Your task to perform on an android device: What's on my calendar today? Image 0: 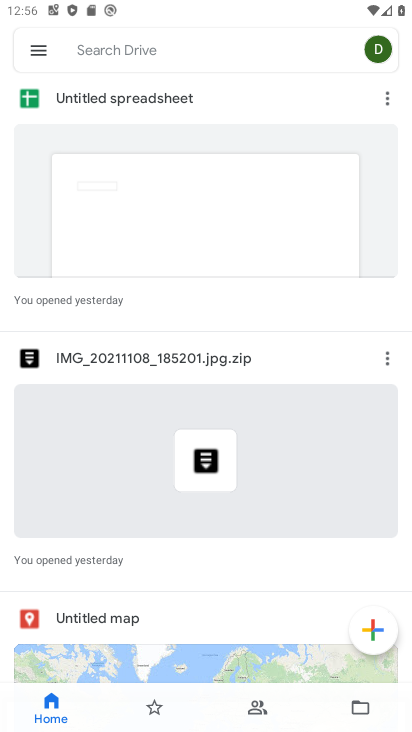
Step 0: press home button
Your task to perform on an android device: What's on my calendar today? Image 1: 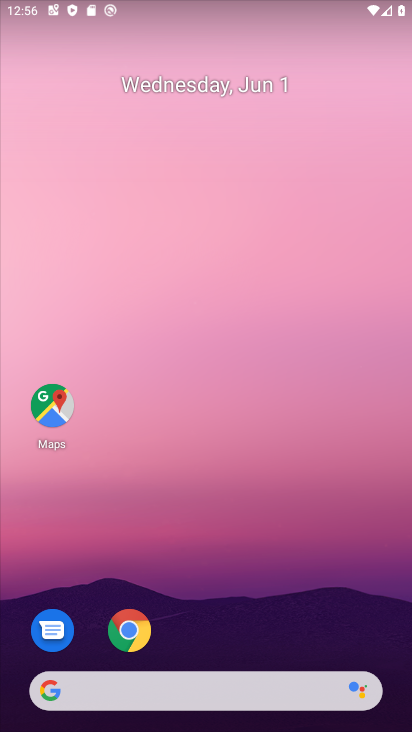
Step 1: drag from (293, 260) to (293, 202)
Your task to perform on an android device: What's on my calendar today? Image 2: 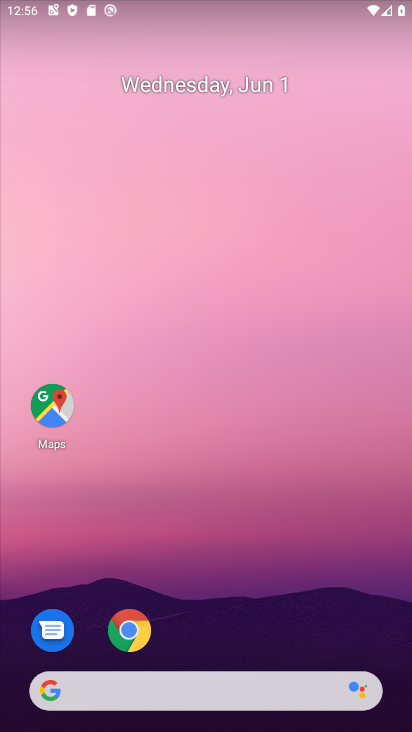
Step 2: drag from (288, 630) to (287, 259)
Your task to perform on an android device: What's on my calendar today? Image 3: 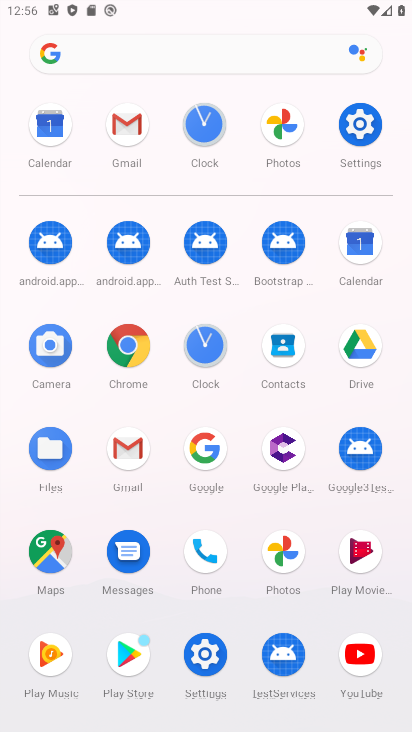
Step 3: click (41, 133)
Your task to perform on an android device: What's on my calendar today? Image 4: 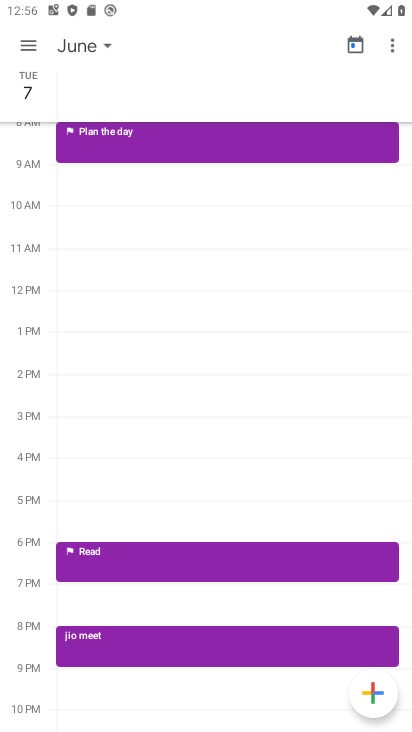
Step 4: click (27, 42)
Your task to perform on an android device: What's on my calendar today? Image 5: 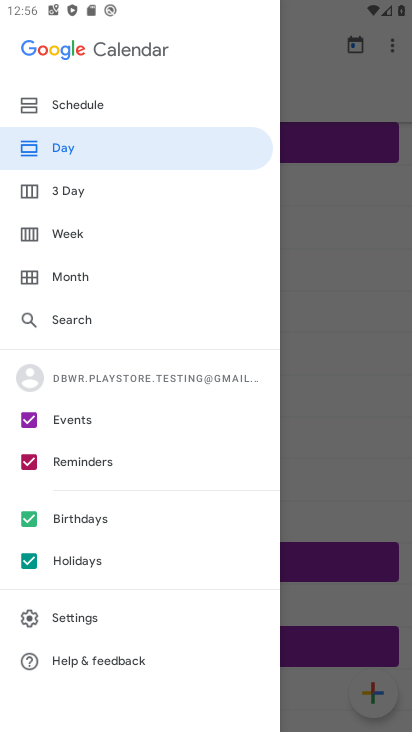
Step 5: click (72, 105)
Your task to perform on an android device: What's on my calendar today? Image 6: 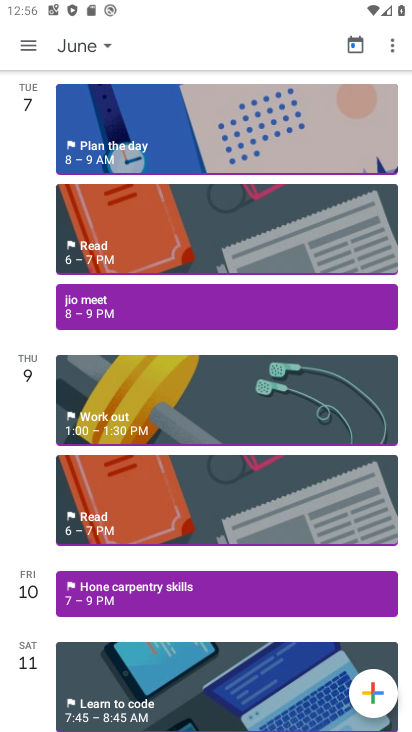
Step 6: task complete